Your task to perform on an android device: What's the news this month? Image 0: 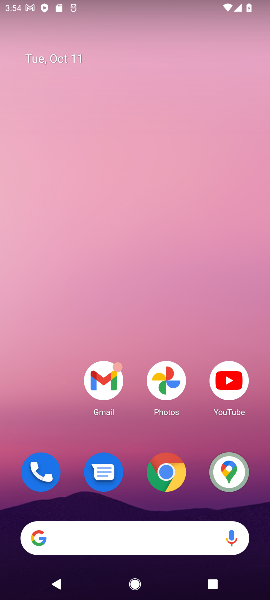
Step 0: click (120, 541)
Your task to perform on an android device: What's the news this month? Image 1: 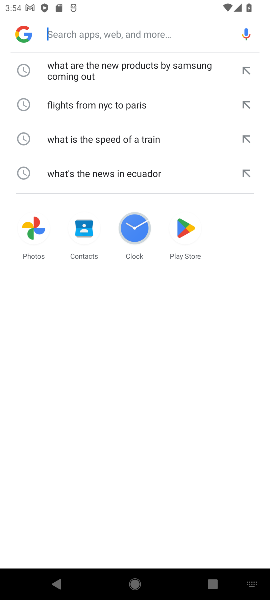
Step 1: type "What's the news this month?"
Your task to perform on an android device: What's the news this month? Image 2: 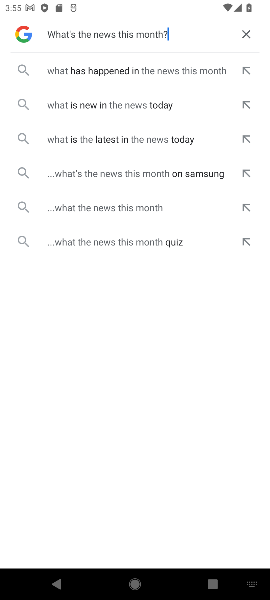
Step 2: click (122, 101)
Your task to perform on an android device: What's the news this month? Image 3: 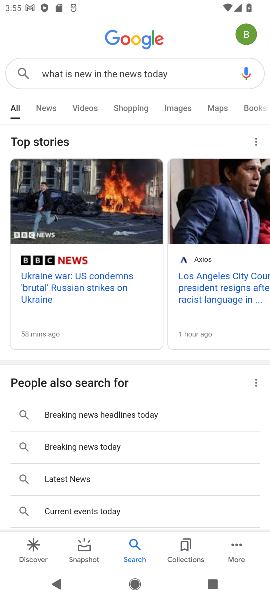
Step 3: task complete